Your task to perform on an android device: Open the calculator Image 0: 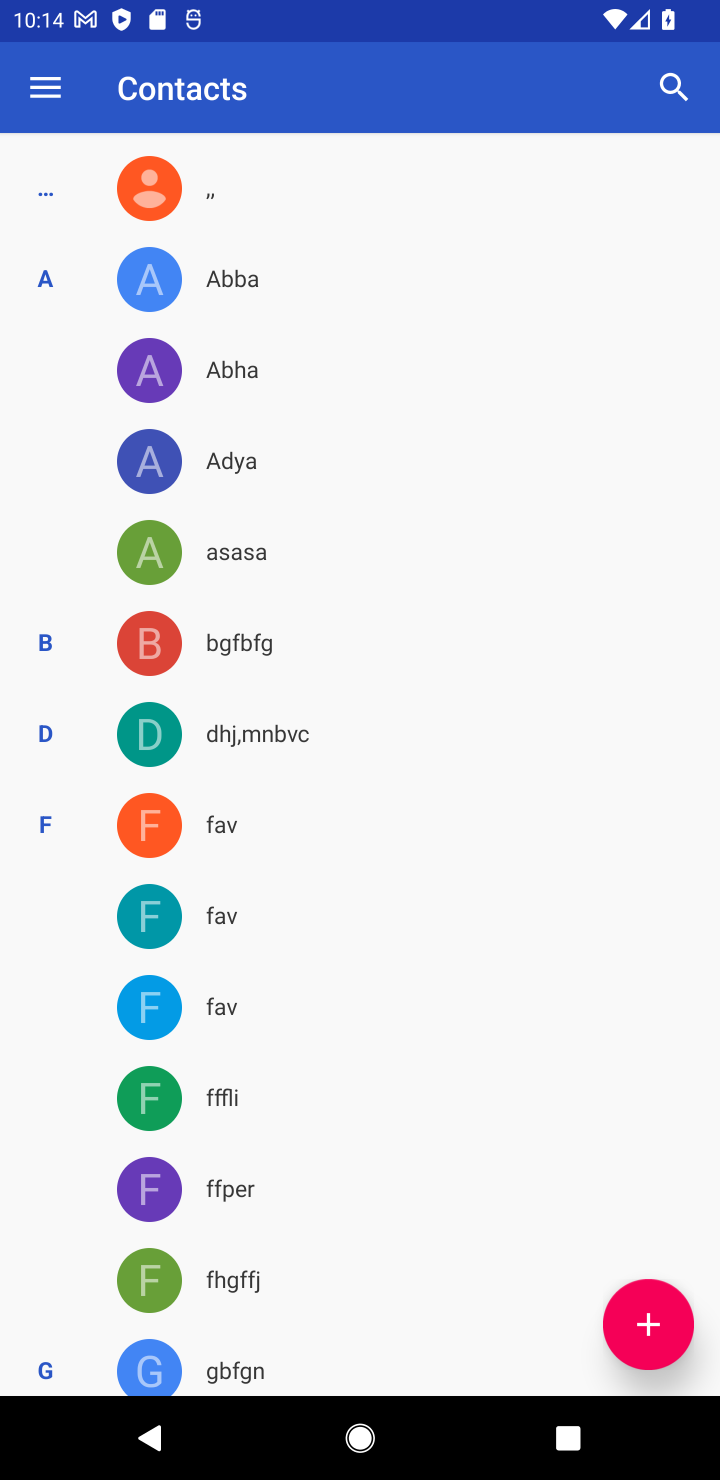
Step 0: press home button
Your task to perform on an android device: Open the calculator Image 1: 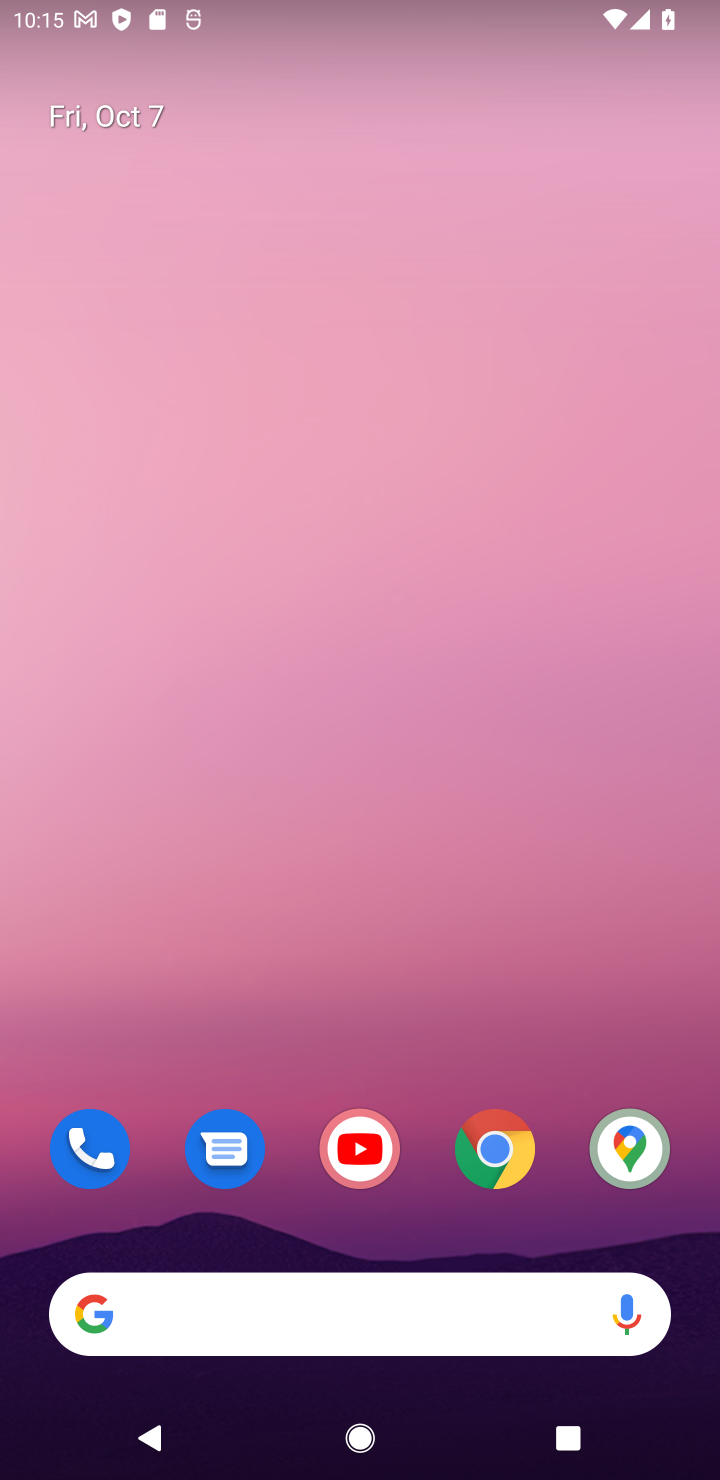
Step 1: task complete